Your task to perform on an android device: turn on the 24-hour format for clock Image 0: 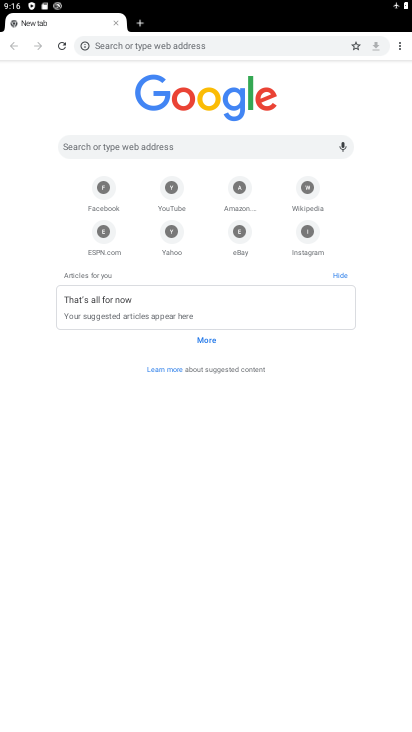
Step 0: press home button
Your task to perform on an android device: turn on the 24-hour format for clock Image 1: 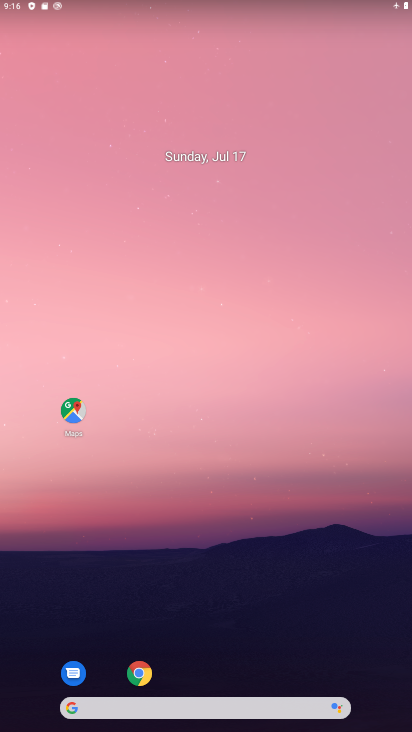
Step 1: drag from (389, 692) to (300, 149)
Your task to perform on an android device: turn on the 24-hour format for clock Image 2: 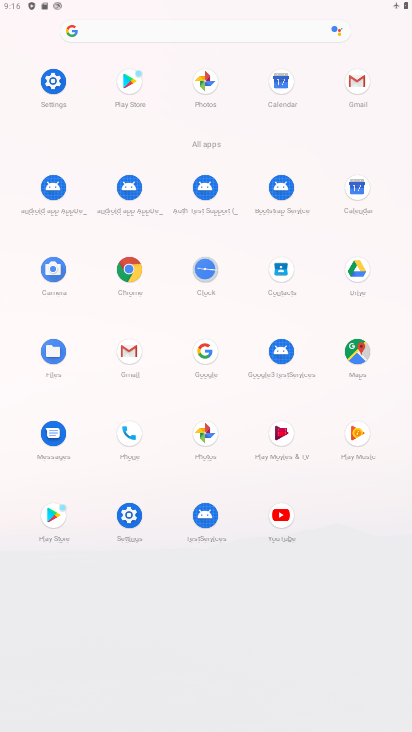
Step 2: click (205, 269)
Your task to perform on an android device: turn on the 24-hour format for clock Image 3: 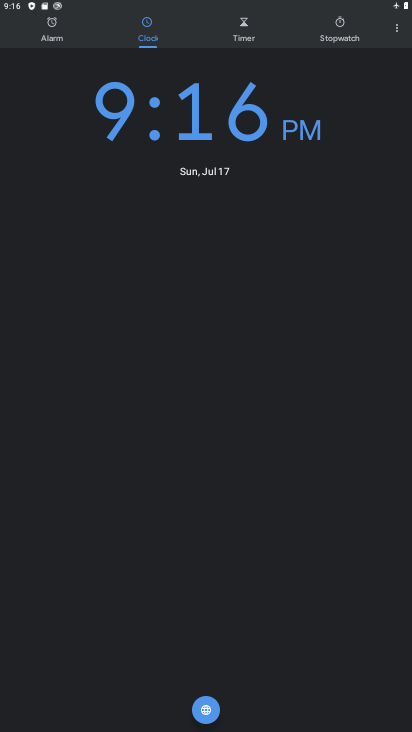
Step 3: click (400, 32)
Your task to perform on an android device: turn on the 24-hour format for clock Image 4: 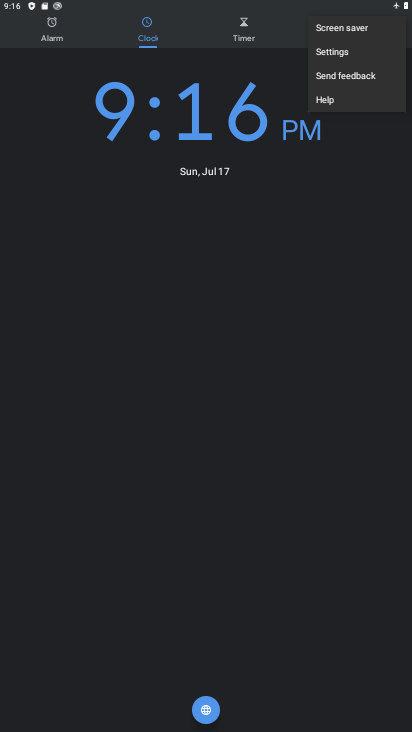
Step 4: click (328, 53)
Your task to perform on an android device: turn on the 24-hour format for clock Image 5: 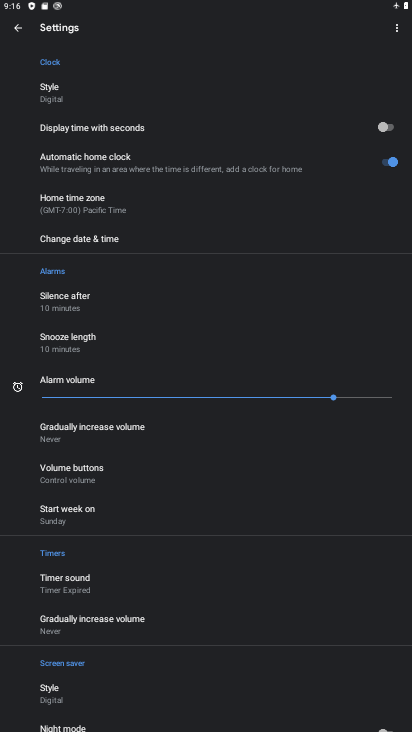
Step 5: click (73, 240)
Your task to perform on an android device: turn on the 24-hour format for clock Image 6: 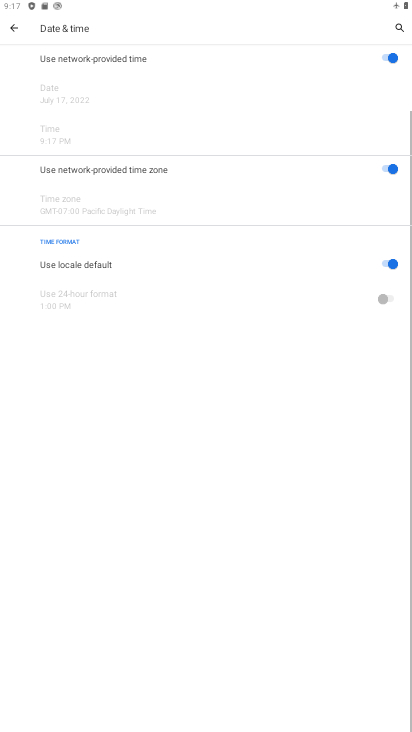
Step 6: click (389, 263)
Your task to perform on an android device: turn on the 24-hour format for clock Image 7: 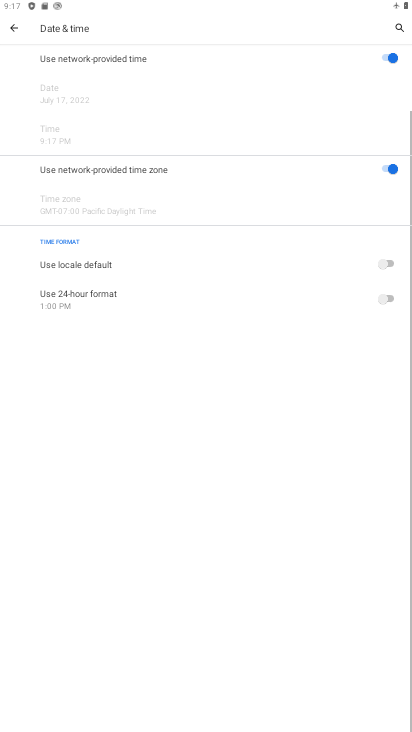
Step 7: click (392, 305)
Your task to perform on an android device: turn on the 24-hour format for clock Image 8: 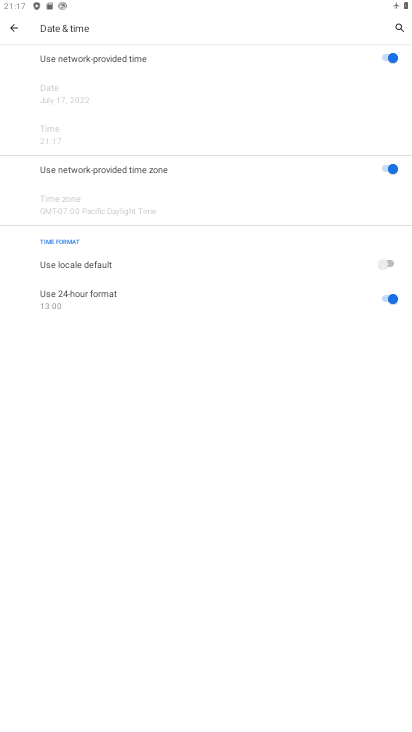
Step 8: task complete